Your task to perform on an android device: Open calendar and show me the fourth week of next month Image 0: 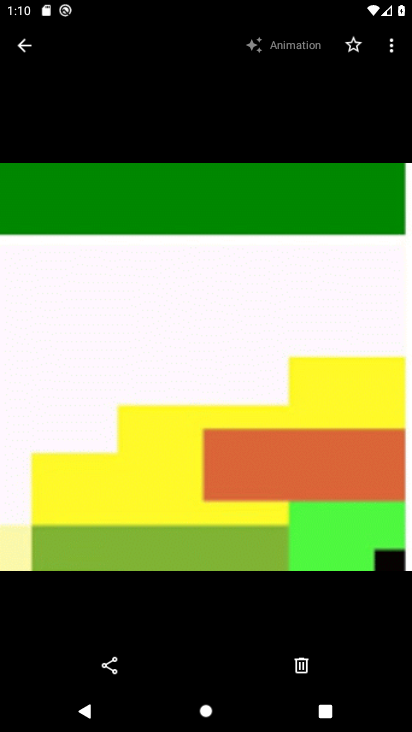
Step 0: press home button
Your task to perform on an android device: Open calendar and show me the fourth week of next month Image 1: 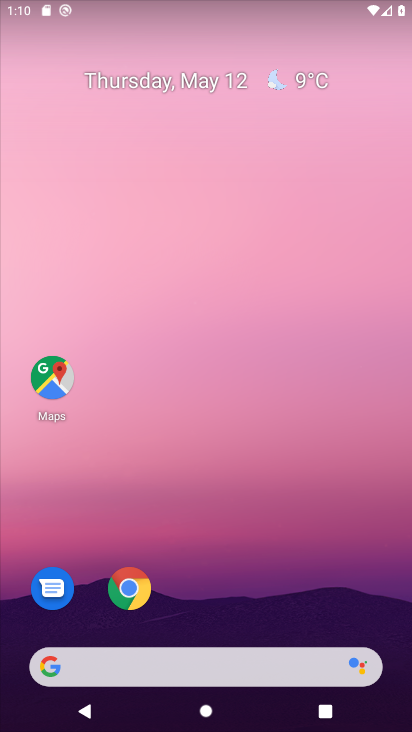
Step 1: drag from (242, 445) to (270, 35)
Your task to perform on an android device: Open calendar and show me the fourth week of next month Image 2: 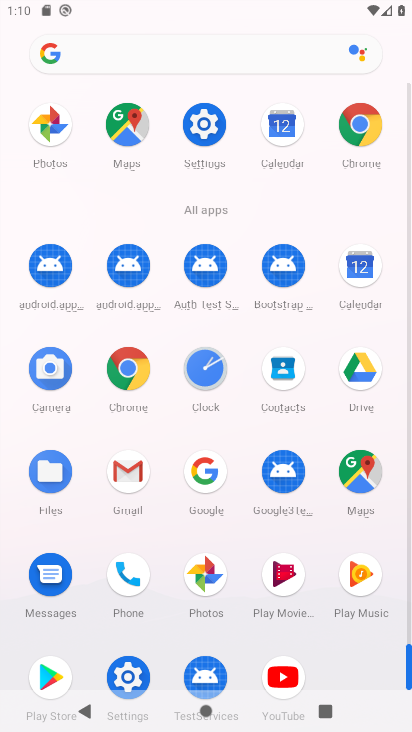
Step 2: click (355, 268)
Your task to perform on an android device: Open calendar and show me the fourth week of next month Image 3: 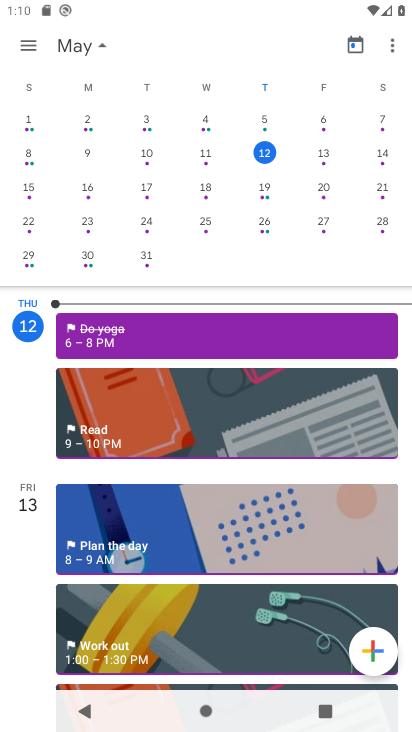
Step 3: drag from (321, 201) to (86, 20)
Your task to perform on an android device: Open calendar and show me the fourth week of next month Image 4: 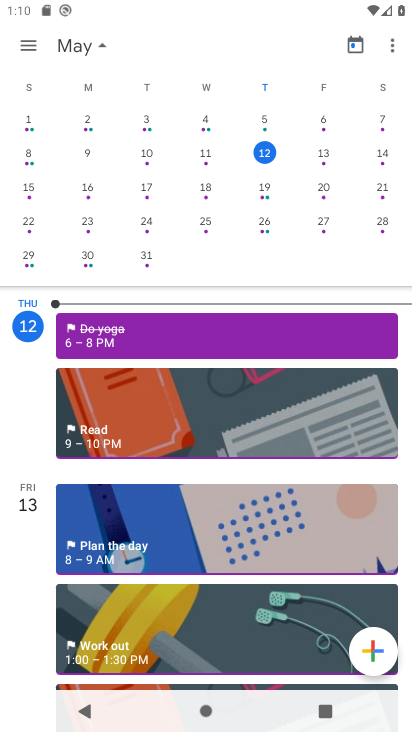
Step 4: click (385, 229)
Your task to perform on an android device: Open calendar and show me the fourth week of next month Image 5: 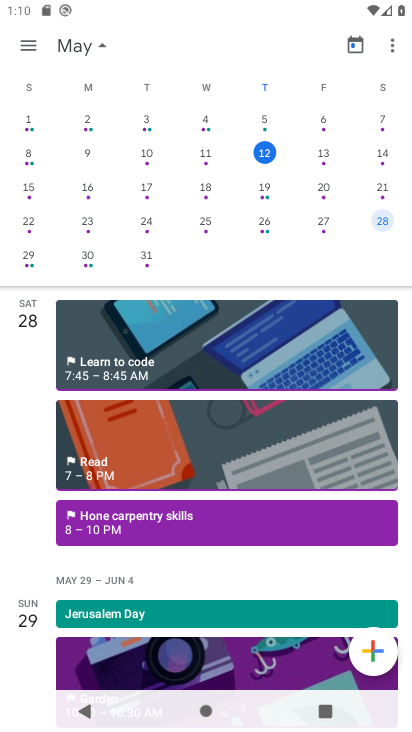
Step 5: task complete